Your task to perform on an android device: Open Google Image 0: 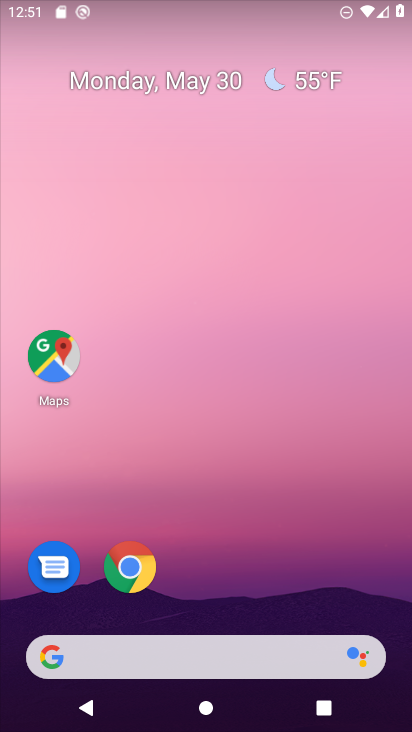
Step 0: drag from (211, 610) to (226, 169)
Your task to perform on an android device: Open Google Image 1: 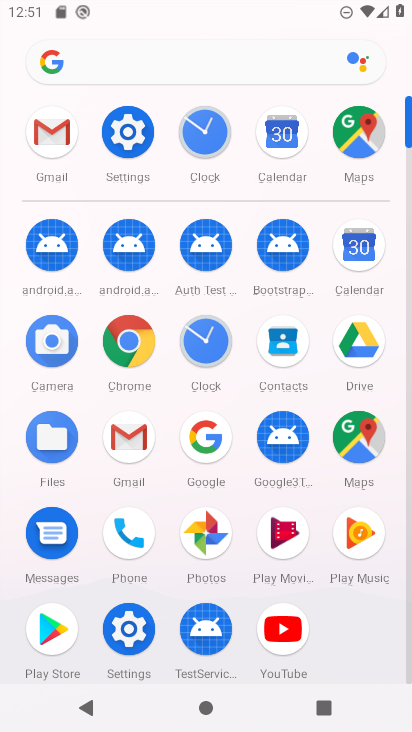
Step 1: click (210, 422)
Your task to perform on an android device: Open Google Image 2: 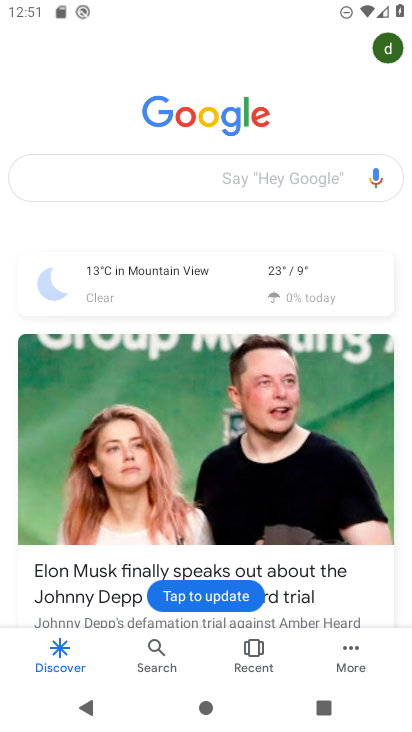
Step 2: click (356, 644)
Your task to perform on an android device: Open Google Image 3: 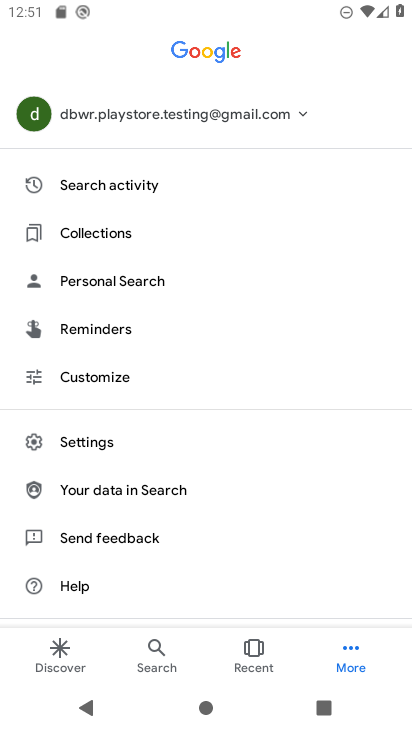
Step 3: task complete